Your task to perform on an android device: open chrome privacy settings Image 0: 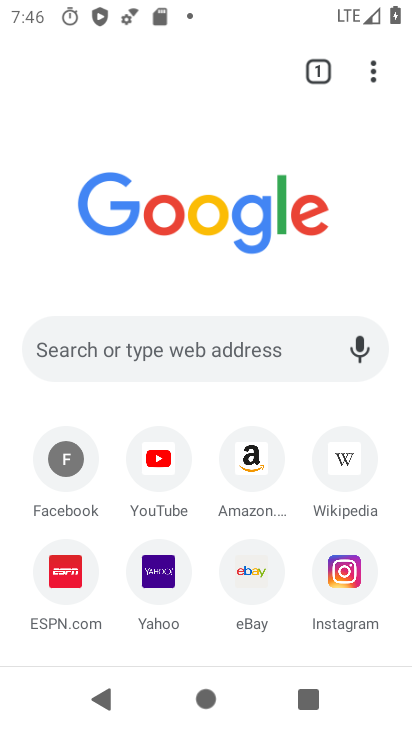
Step 0: drag from (377, 74) to (113, 514)
Your task to perform on an android device: open chrome privacy settings Image 1: 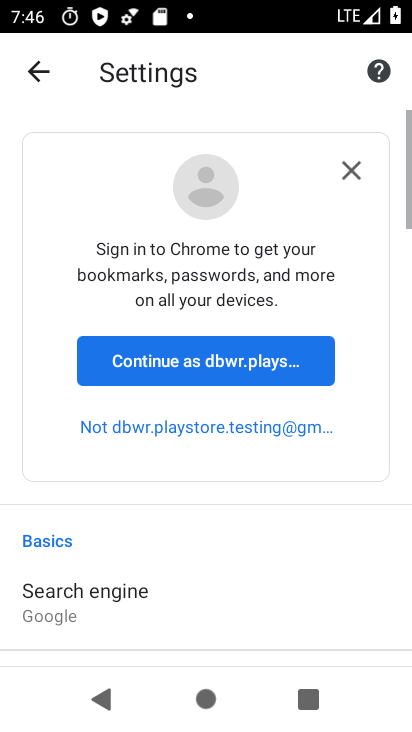
Step 1: drag from (196, 608) to (260, 168)
Your task to perform on an android device: open chrome privacy settings Image 2: 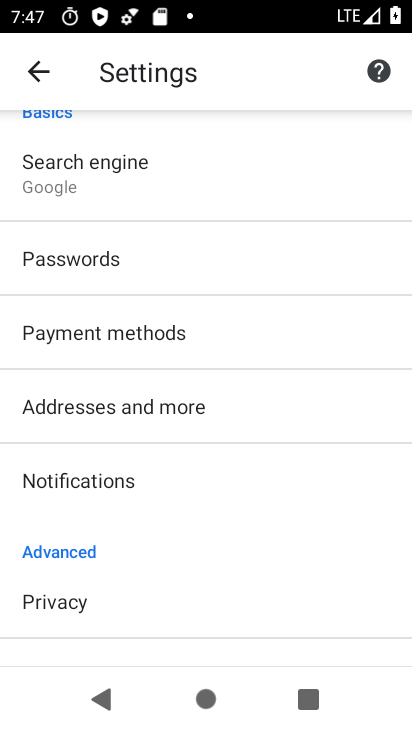
Step 2: drag from (188, 543) to (207, 208)
Your task to perform on an android device: open chrome privacy settings Image 3: 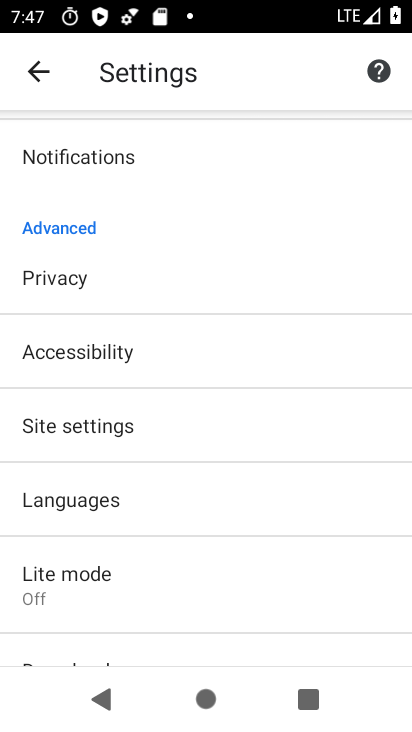
Step 3: click (156, 275)
Your task to perform on an android device: open chrome privacy settings Image 4: 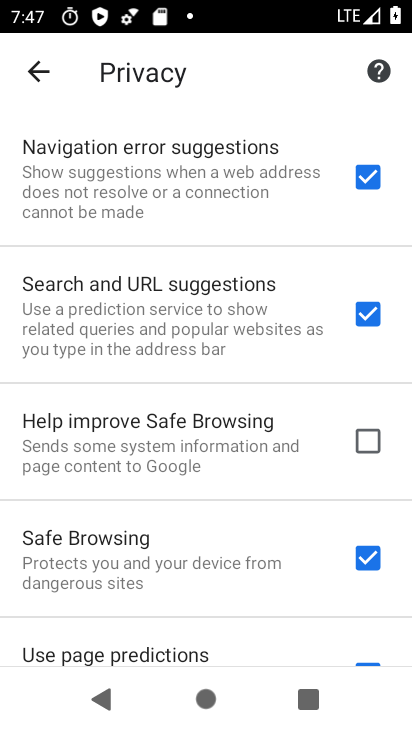
Step 4: task complete